Your task to perform on an android device: delete the emails in spam in the gmail app Image 0: 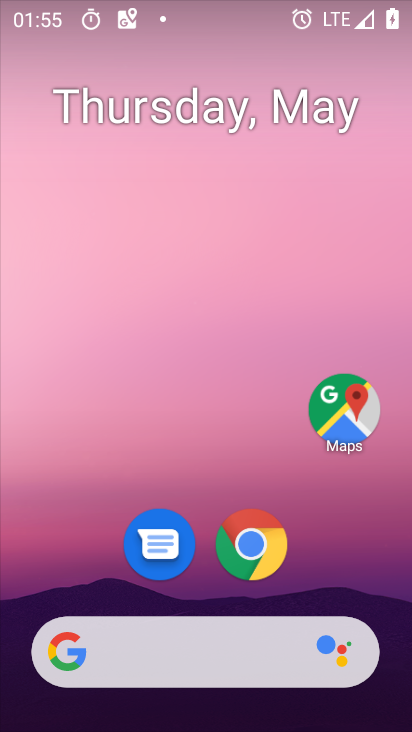
Step 0: drag from (360, 566) to (317, 106)
Your task to perform on an android device: delete the emails in spam in the gmail app Image 1: 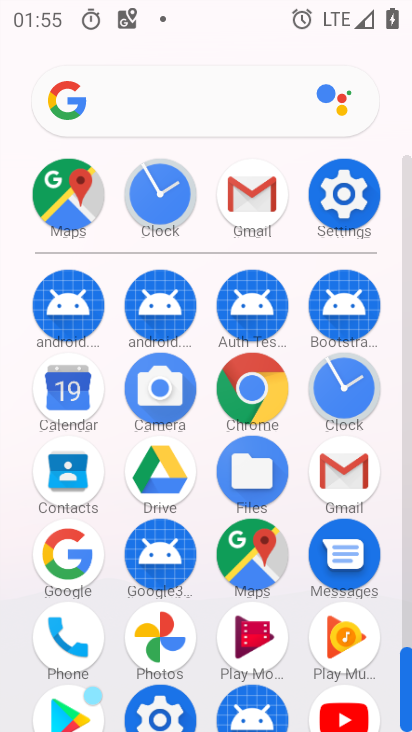
Step 1: click (334, 478)
Your task to perform on an android device: delete the emails in spam in the gmail app Image 2: 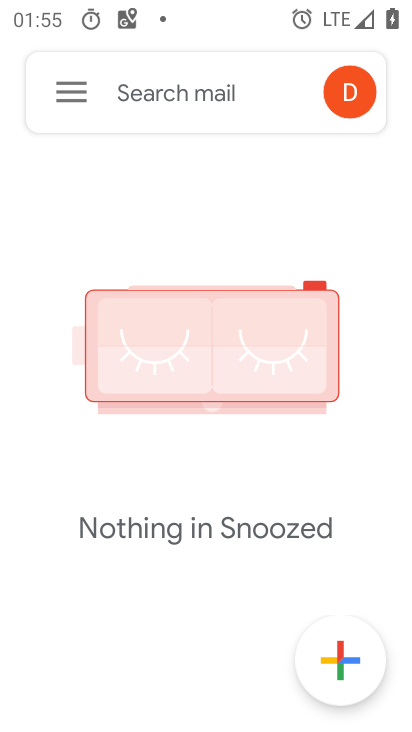
Step 2: click (61, 91)
Your task to perform on an android device: delete the emails in spam in the gmail app Image 3: 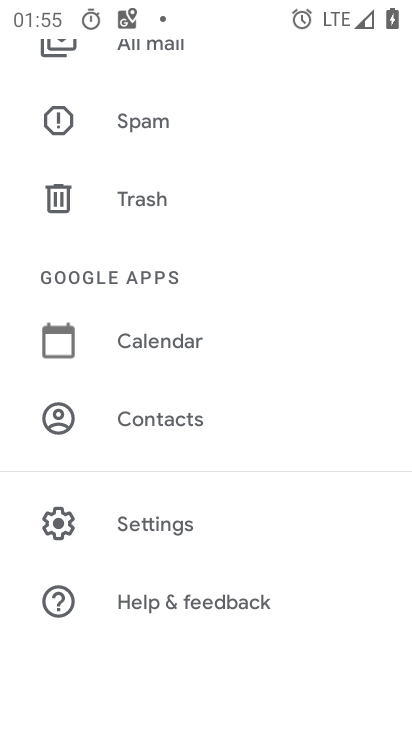
Step 3: drag from (288, 429) to (304, 515)
Your task to perform on an android device: delete the emails in spam in the gmail app Image 4: 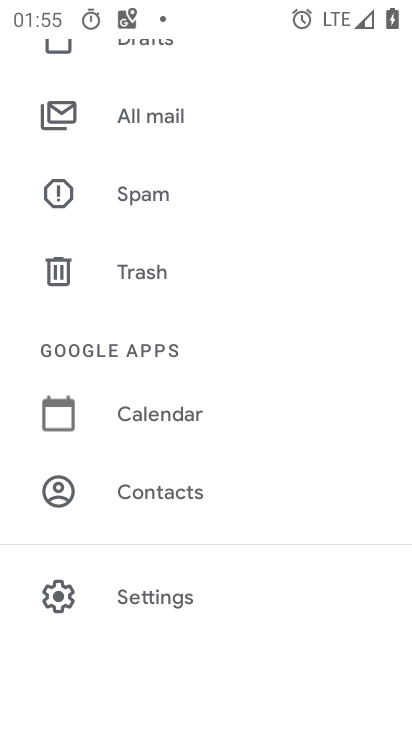
Step 4: drag from (323, 397) to (329, 492)
Your task to perform on an android device: delete the emails in spam in the gmail app Image 5: 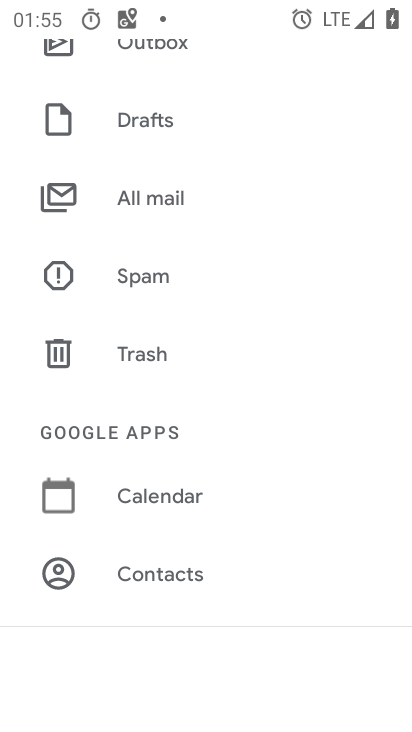
Step 5: drag from (321, 303) to (315, 415)
Your task to perform on an android device: delete the emails in spam in the gmail app Image 6: 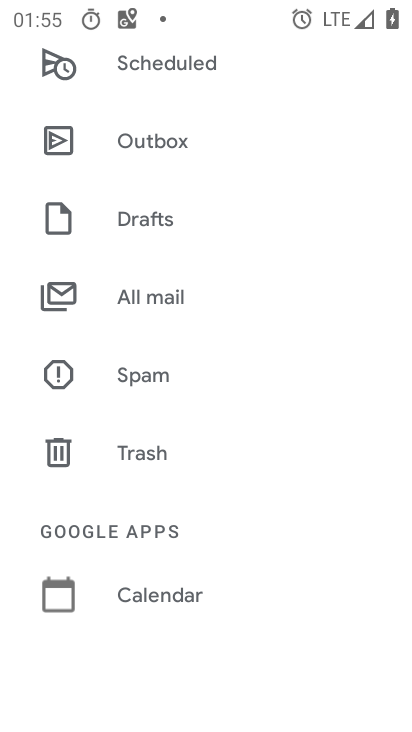
Step 6: drag from (321, 322) to (322, 401)
Your task to perform on an android device: delete the emails in spam in the gmail app Image 7: 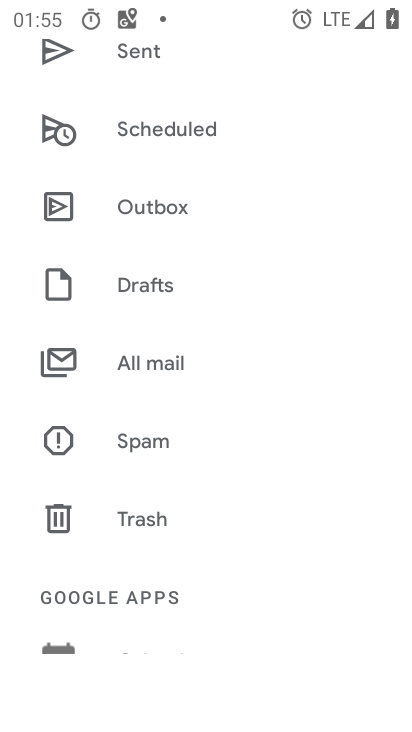
Step 7: drag from (319, 289) to (321, 375)
Your task to perform on an android device: delete the emails in spam in the gmail app Image 8: 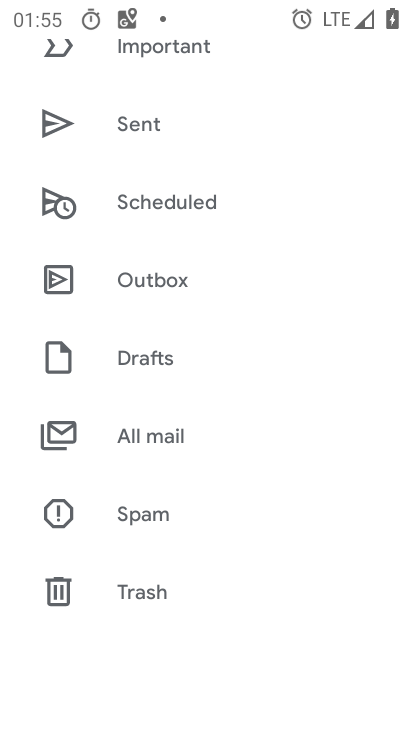
Step 8: drag from (315, 265) to (311, 354)
Your task to perform on an android device: delete the emails in spam in the gmail app Image 9: 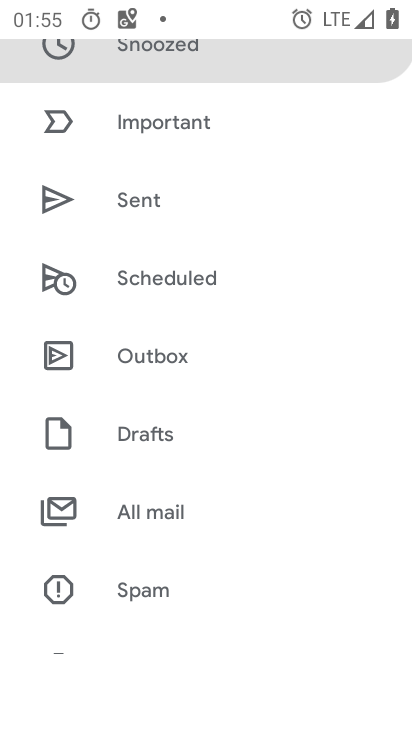
Step 9: drag from (318, 219) to (302, 331)
Your task to perform on an android device: delete the emails in spam in the gmail app Image 10: 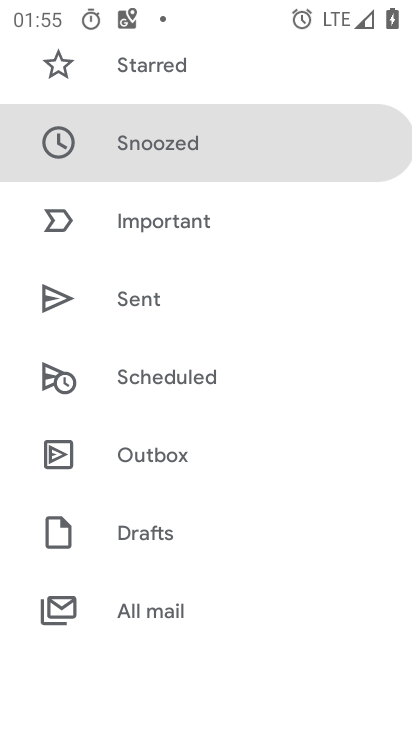
Step 10: drag from (305, 207) to (309, 328)
Your task to perform on an android device: delete the emails in spam in the gmail app Image 11: 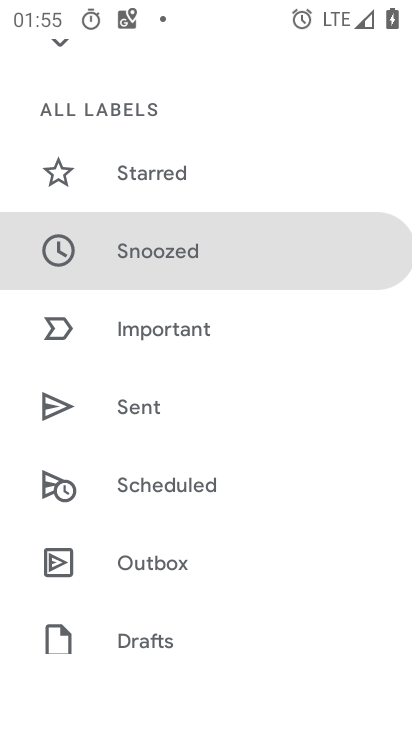
Step 11: drag from (294, 155) to (297, 304)
Your task to perform on an android device: delete the emails in spam in the gmail app Image 12: 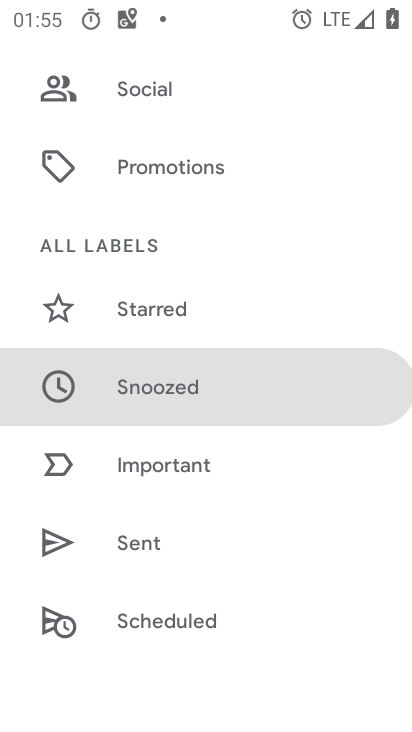
Step 12: drag from (293, 179) to (276, 281)
Your task to perform on an android device: delete the emails in spam in the gmail app Image 13: 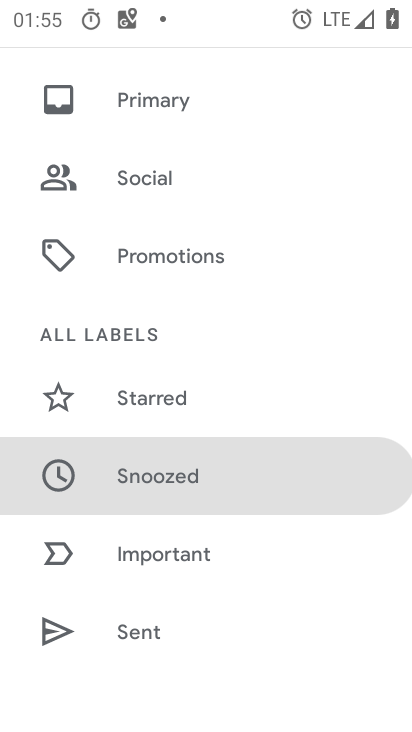
Step 13: drag from (274, 163) to (264, 265)
Your task to perform on an android device: delete the emails in spam in the gmail app Image 14: 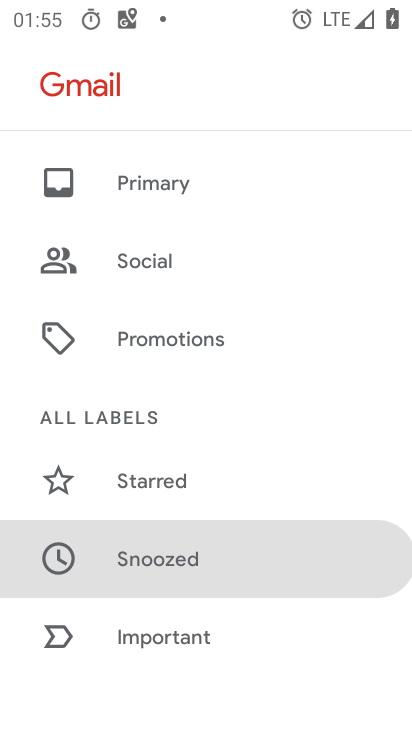
Step 14: drag from (258, 186) to (258, 249)
Your task to perform on an android device: delete the emails in spam in the gmail app Image 15: 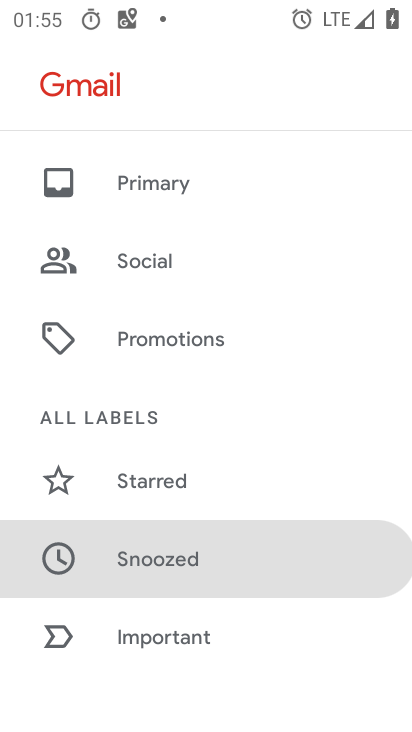
Step 15: click (203, 213)
Your task to perform on an android device: delete the emails in spam in the gmail app Image 16: 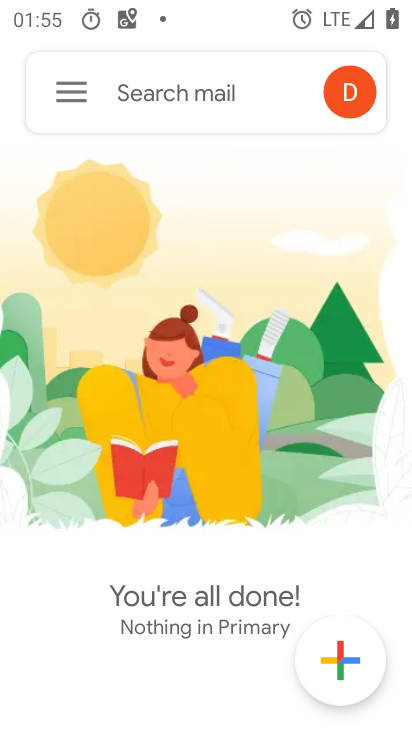
Step 16: task complete